Your task to perform on an android device: turn notification dots on Image 0: 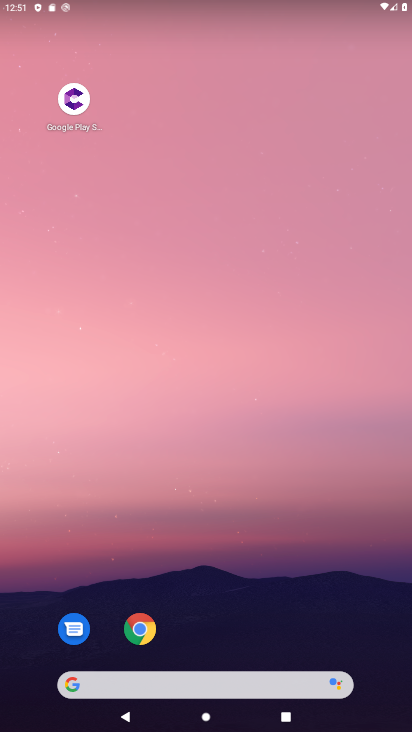
Step 0: drag from (258, 618) to (290, 260)
Your task to perform on an android device: turn notification dots on Image 1: 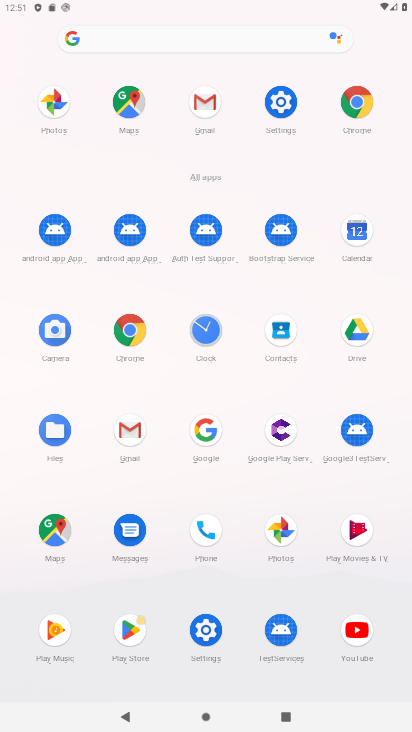
Step 1: click (198, 629)
Your task to perform on an android device: turn notification dots on Image 2: 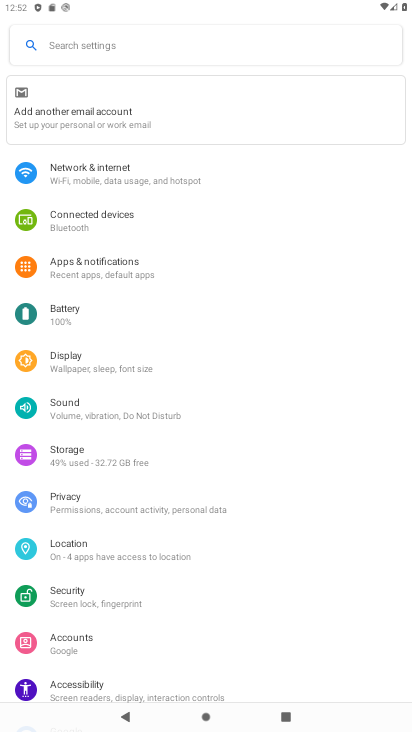
Step 2: click (106, 263)
Your task to perform on an android device: turn notification dots on Image 3: 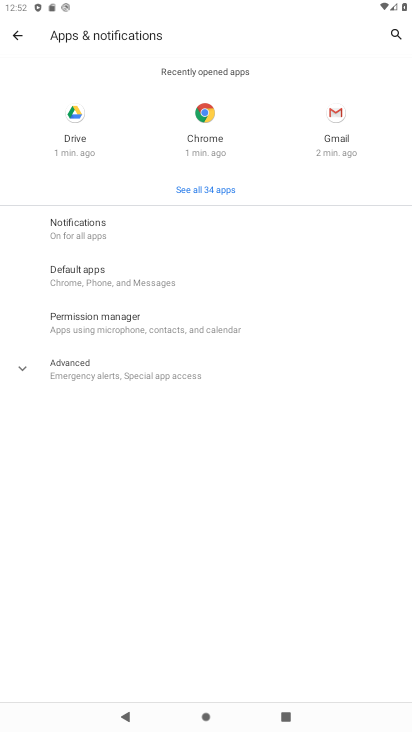
Step 3: click (126, 229)
Your task to perform on an android device: turn notification dots on Image 4: 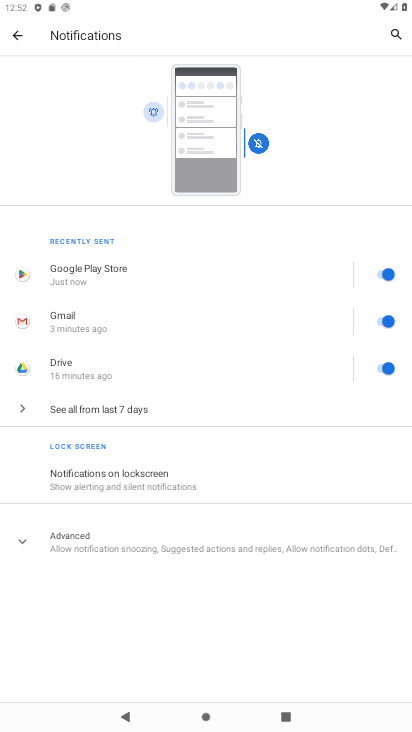
Step 4: click (157, 471)
Your task to perform on an android device: turn notification dots on Image 5: 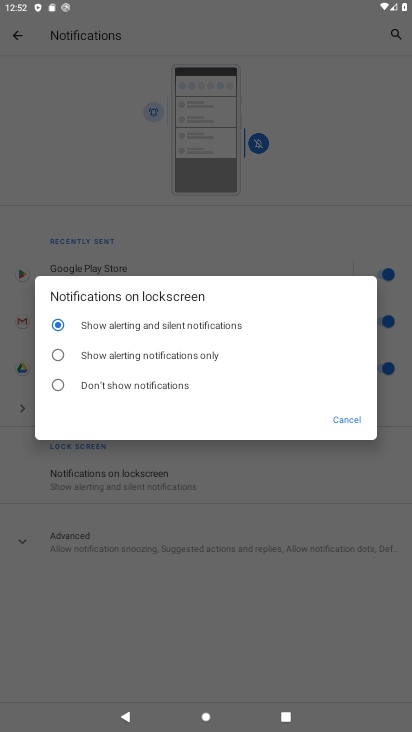
Step 5: click (127, 527)
Your task to perform on an android device: turn notification dots on Image 6: 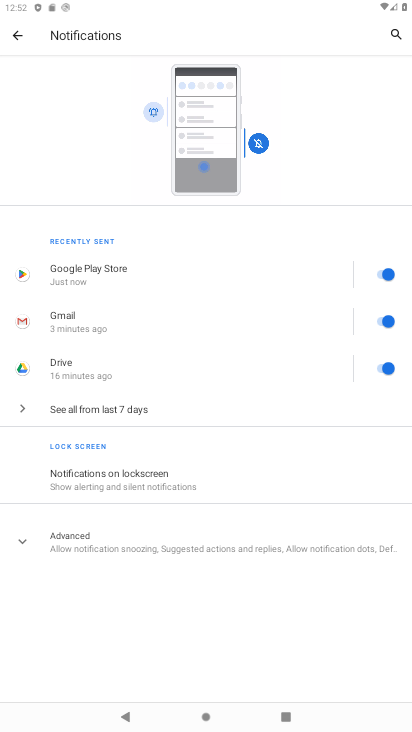
Step 6: click (128, 527)
Your task to perform on an android device: turn notification dots on Image 7: 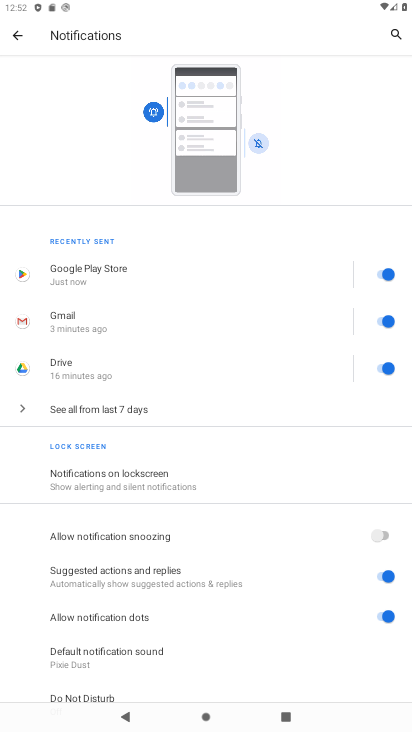
Step 7: task complete